Your task to perform on an android device: turn on notifications settings in the gmail app Image 0: 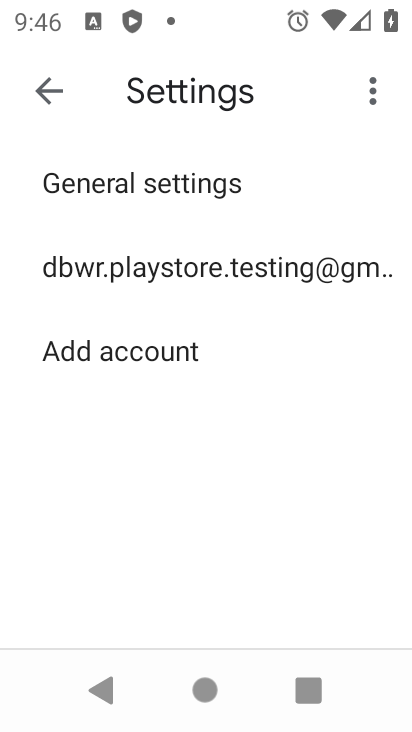
Step 0: press home button
Your task to perform on an android device: turn on notifications settings in the gmail app Image 1: 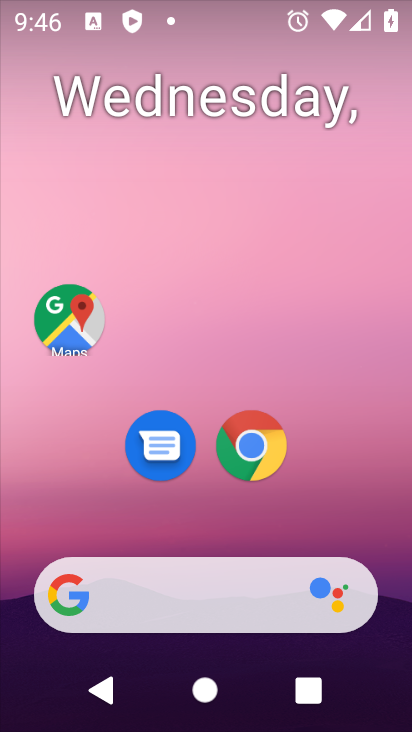
Step 1: drag from (394, 430) to (390, 34)
Your task to perform on an android device: turn on notifications settings in the gmail app Image 2: 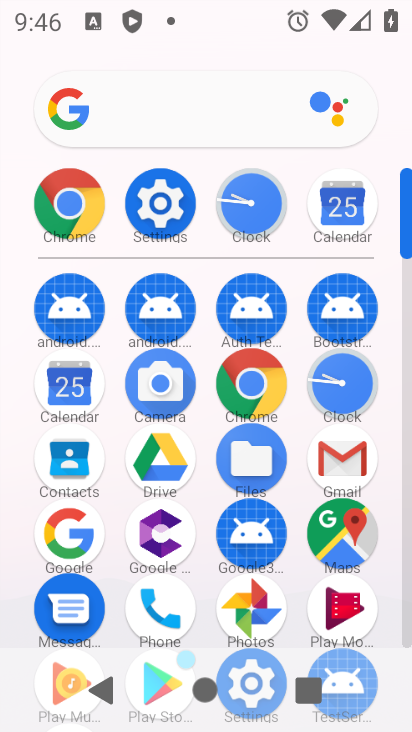
Step 2: click (332, 448)
Your task to perform on an android device: turn on notifications settings in the gmail app Image 3: 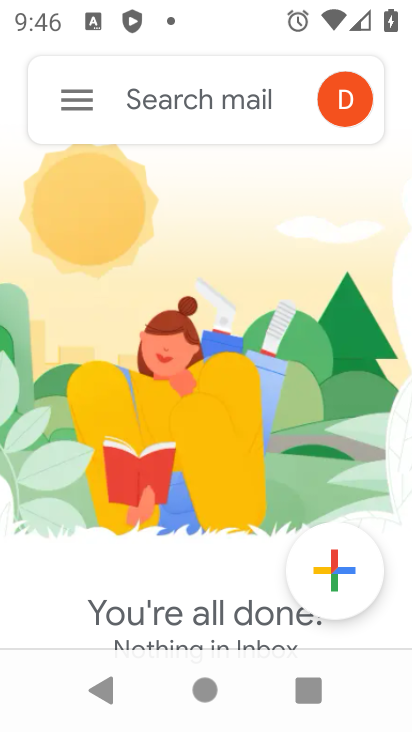
Step 3: click (72, 108)
Your task to perform on an android device: turn on notifications settings in the gmail app Image 4: 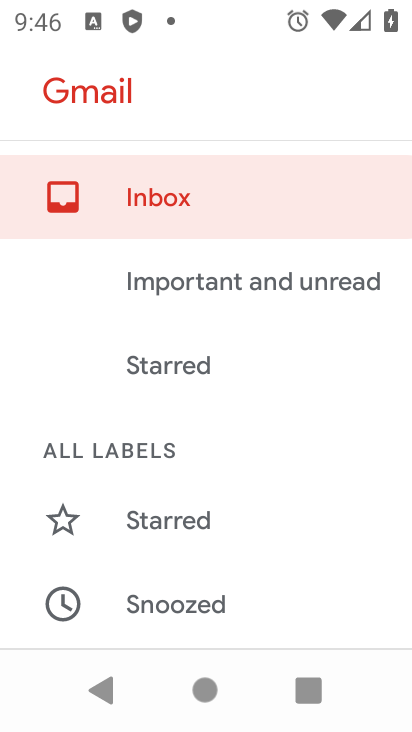
Step 4: drag from (186, 554) to (199, 89)
Your task to perform on an android device: turn on notifications settings in the gmail app Image 5: 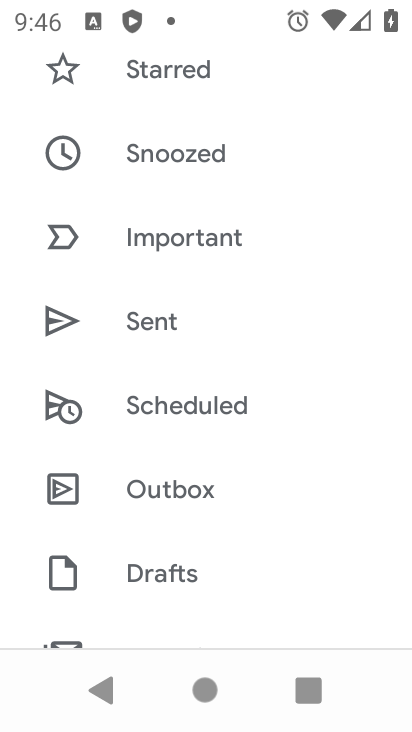
Step 5: drag from (183, 578) to (205, 98)
Your task to perform on an android device: turn on notifications settings in the gmail app Image 6: 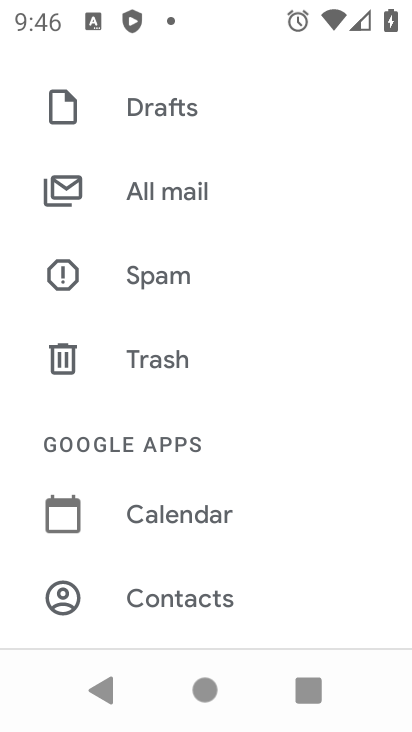
Step 6: drag from (206, 582) to (266, 105)
Your task to perform on an android device: turn on notifications settings in the gmail app Image 7: 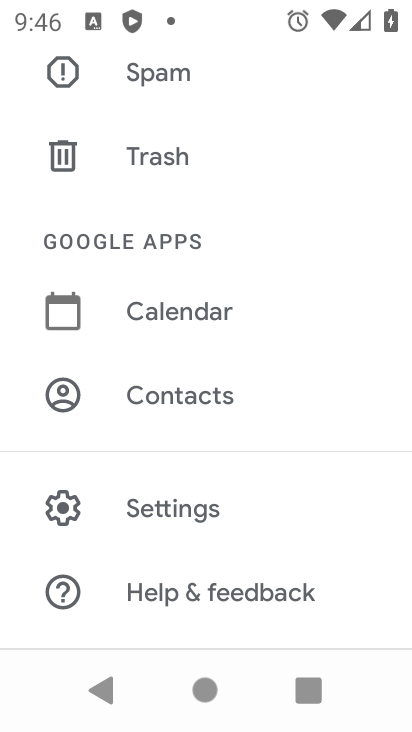
Step 7: click (139, 500)
Your task to perform on an android device: turn on notifications settings in the gmail app Image 8: 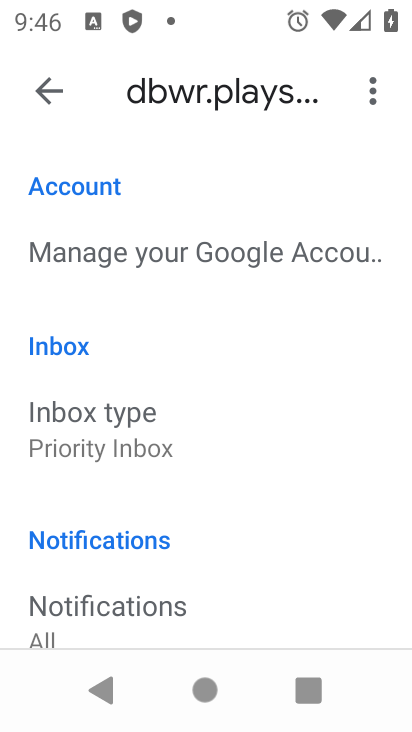
Step 8: drag from (192, 633) to (178, 286)
Your task to perform on an android device: turn on notifications settings in the gmail app Image 9: 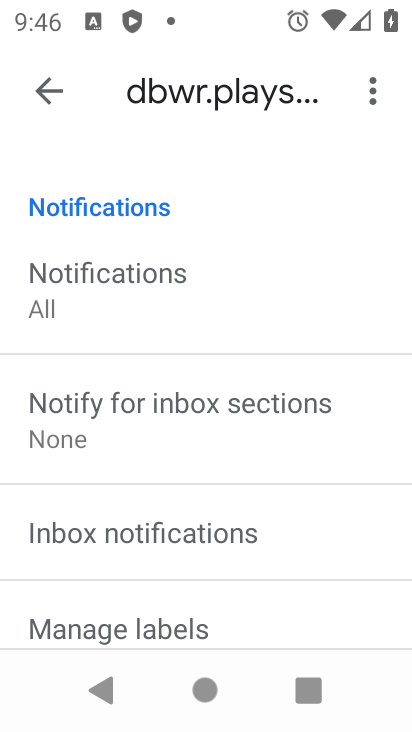
Step 9: click (93, 292)
Your task to perform on an android device: turn on notifications settings in the gmail app Image 10: 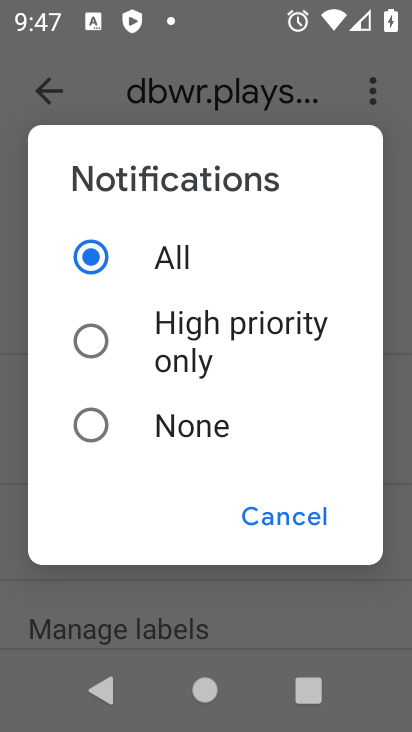
Step 10: click (105, 359)
Your task to perform on an android device: turn on notifications settings in the gmail app Image 11: 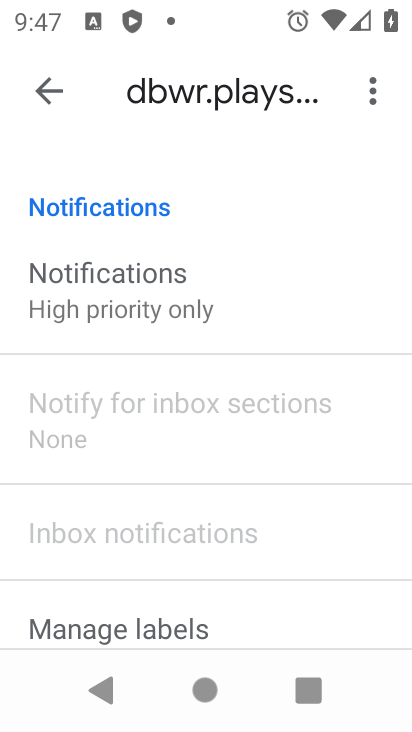
Step 11: task complete